Your task to perform on an android device: Turn off the flashlight Image 0: 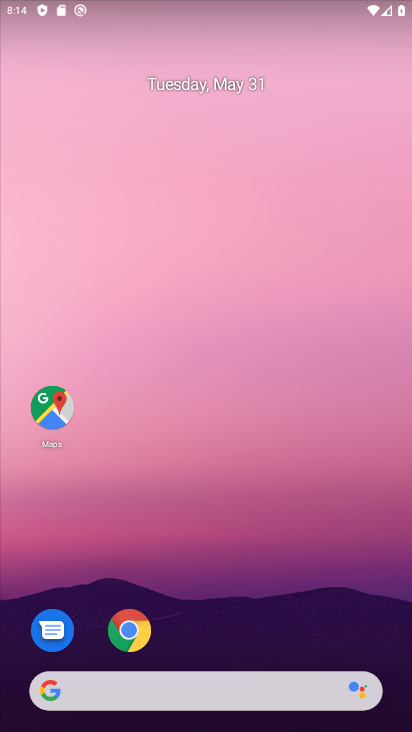
Step 0: drag from (219, 0) to (192, 495)
Your task to perform on an android device: Turn off the flashlight Image 1: 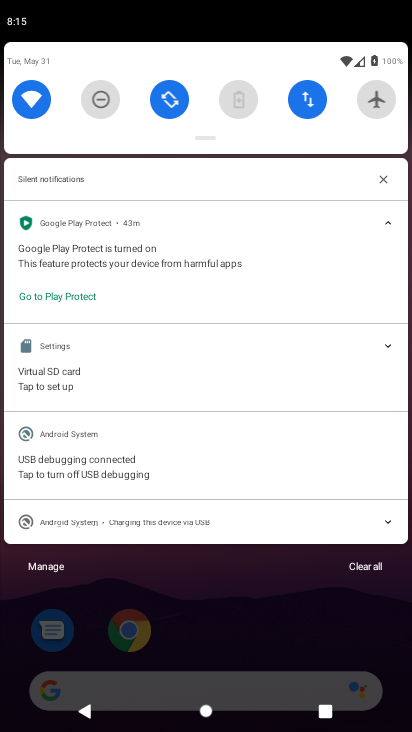
Step 1: task complete